Your task to perform on an android device: Go to Amazon Image 0: 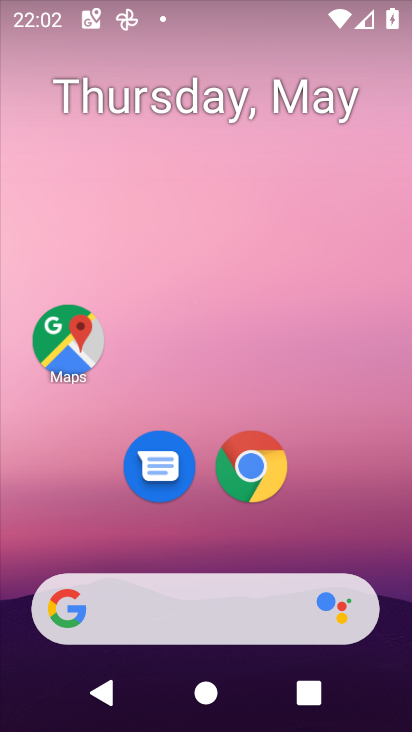
Step 0: drag from (355, 530) to (292, 97)
Your task to perform on an android device: Go to Amazon Image 1: 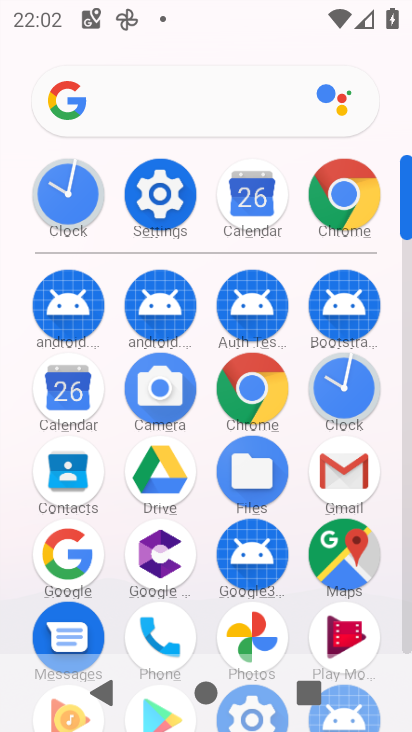
Step 1: click (337, 217)
Your task to perform on an android device: Go to Amazon Image 2: 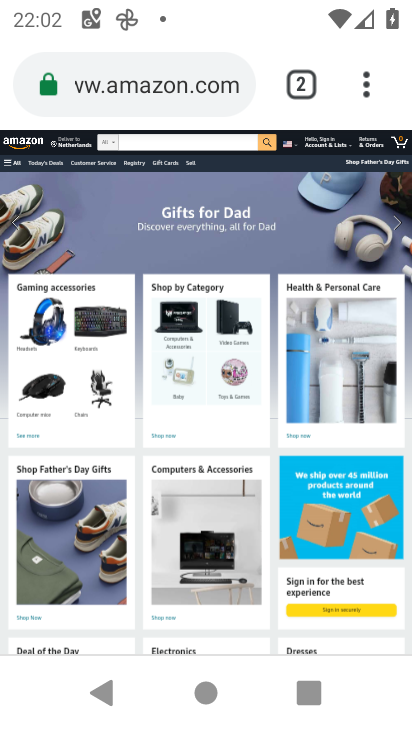
Step 2: task complete